Your task to perform on an android device: install app "Adobe Acrobat Reader" Image 0: 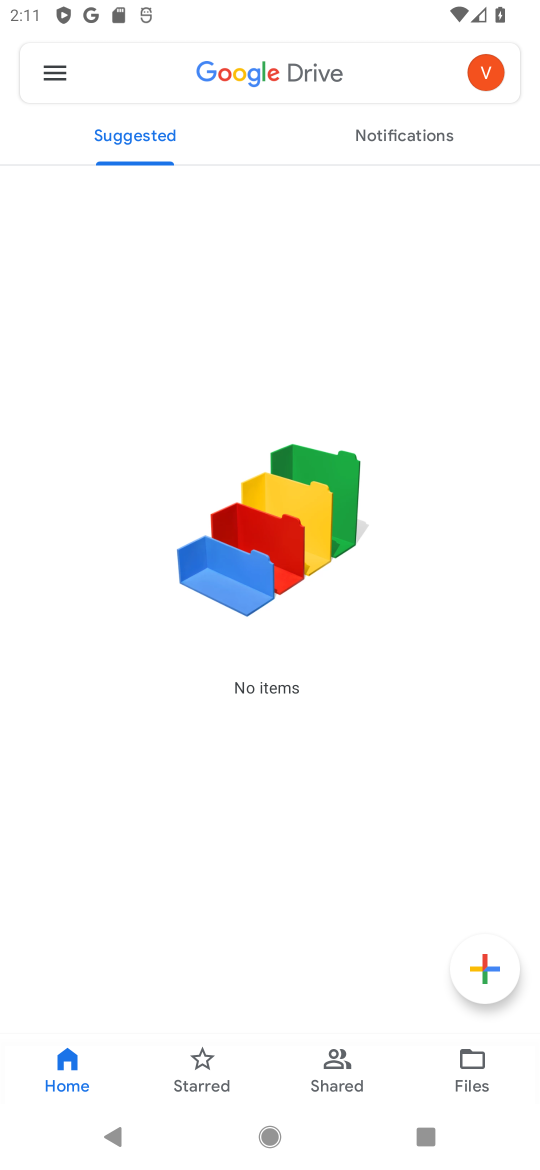
Step 0: press home button
Your task to perform on an android device: install app "Adobe Acrobat Reader" Image 1: 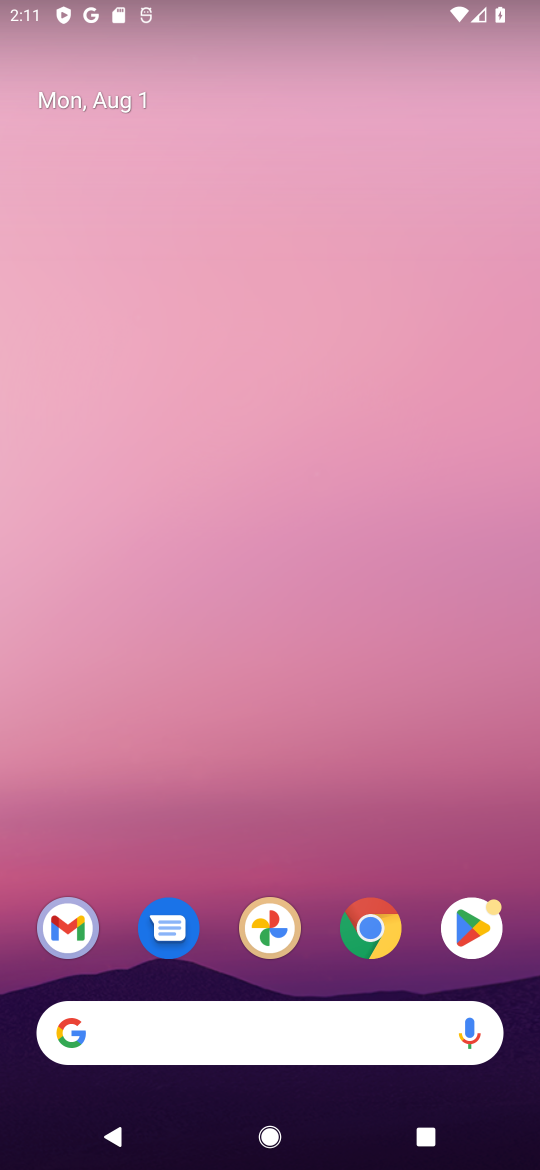
Step 1: click (483, 901)
Your task to perform on an android device: install app "Adobe Acrobat Reader" Image 2: 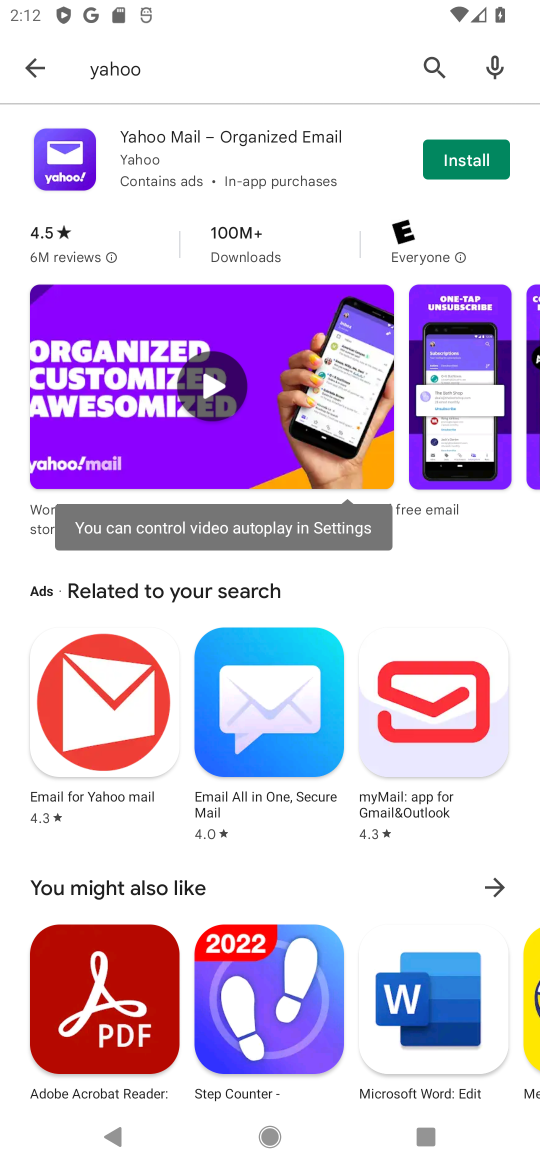
Step 2: click (431, 74)
Your task to perform on an android device: install app "Adobe Acrobat Reader" Image 3: 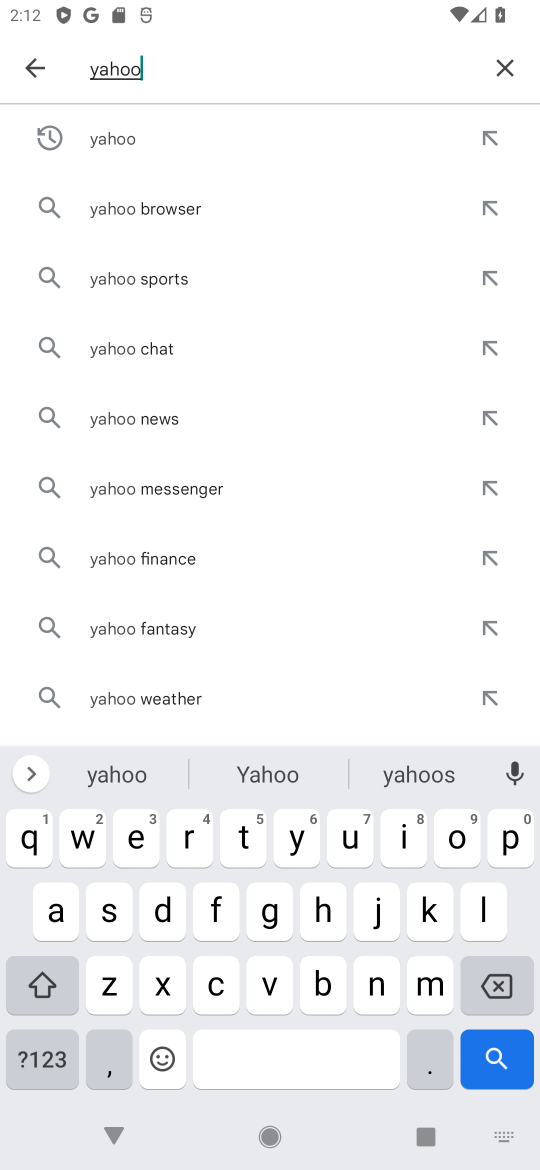
Step 3: click (496, 68)
Your task to perform on an android device: install app "Adobe Acrobat Reader" Image 4: 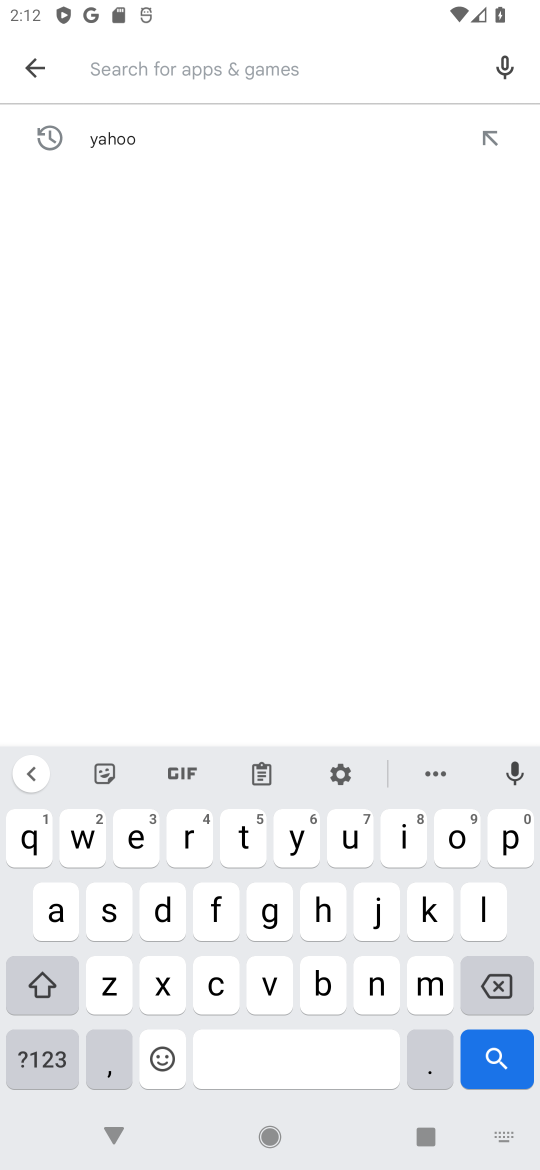
Step 4: click (53, 913)
Your task to perform on an android device: install app "Adobe Acrobat Reader" Image 5: 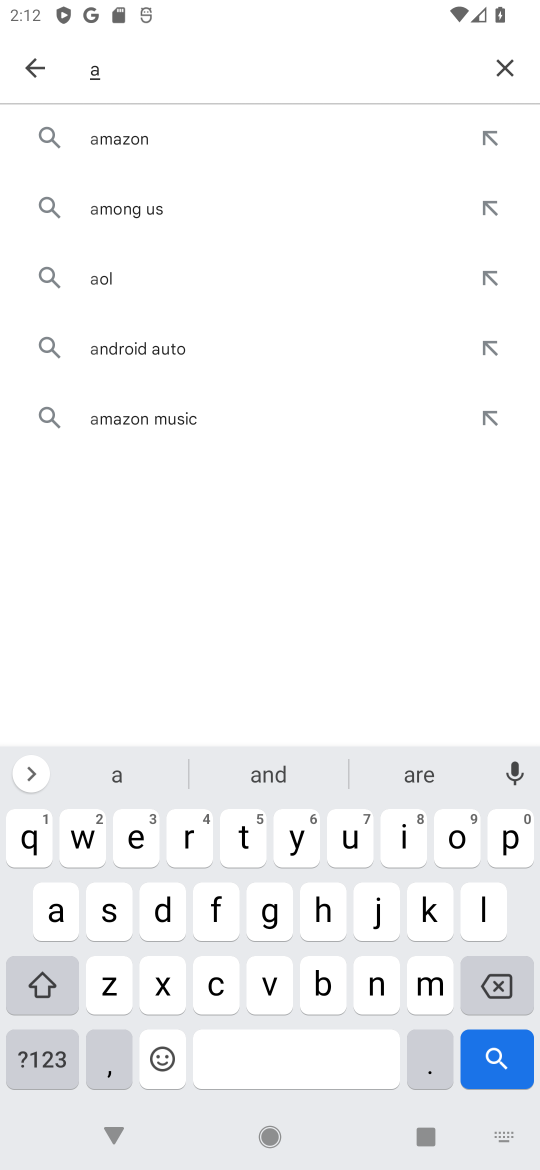
Step 5: click (168, 918)
Your task to perform on an android device: install app "Adobe Acrobat Reader" Image 6: 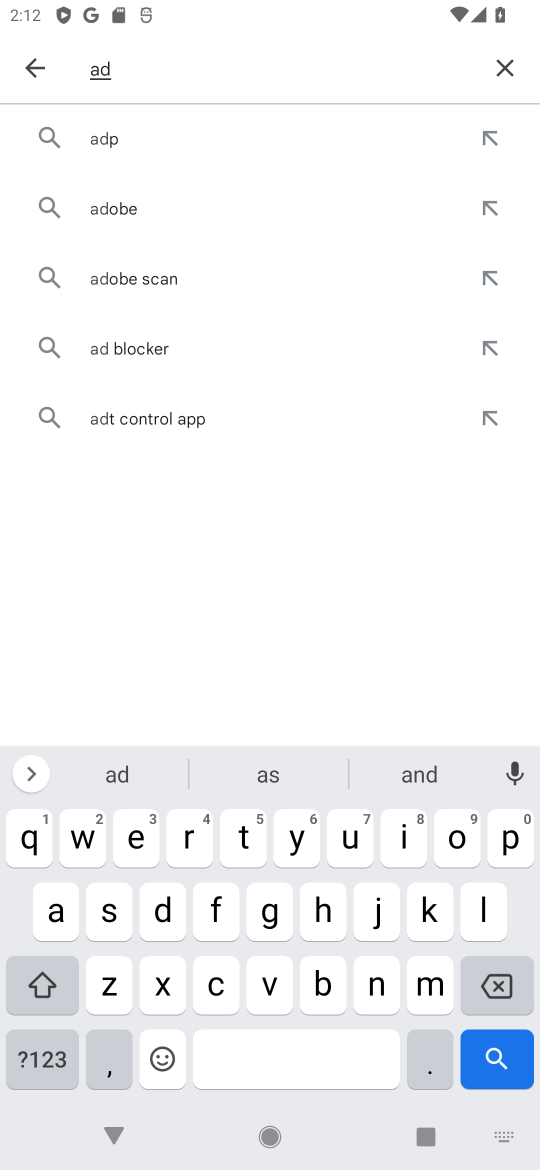
Step 6: click (443, 842)
Your task to perform on an android device: install app "Adobe Acrobat Reader" Image 7: 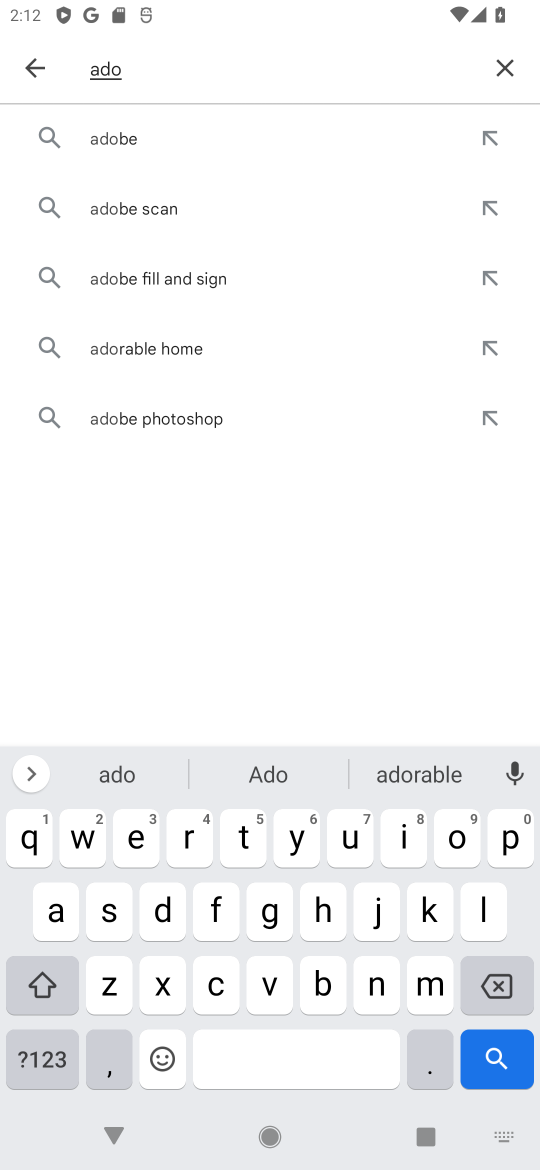
Step 7: click (124, 133)
Your task to perform on an android device: install app "Adobe Acrobat Reader" Image 8: 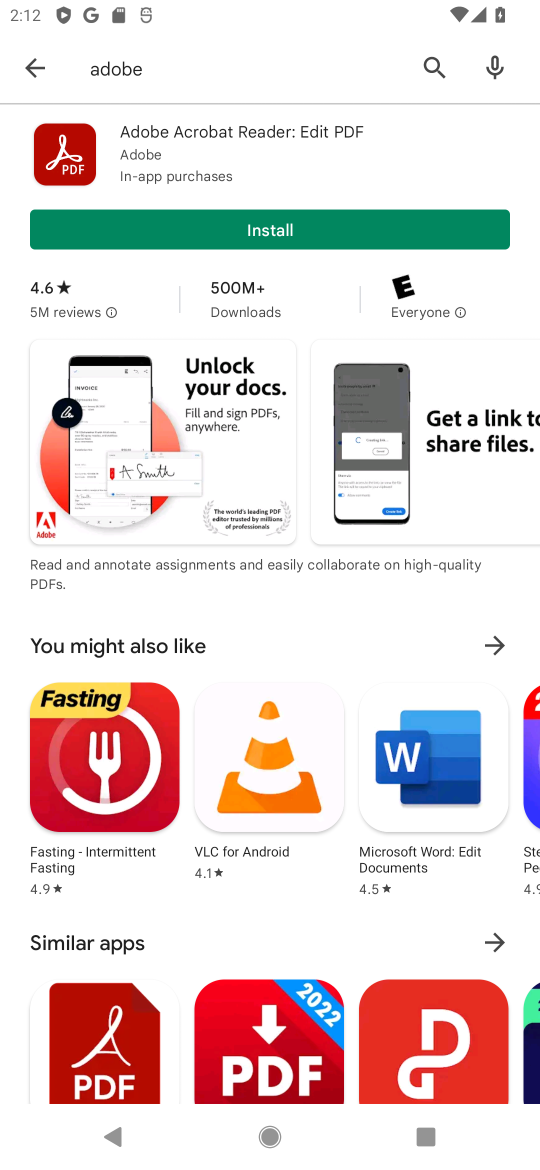
Step 8: click (105, 223)
Your task to perform on an android device: install app "Adobe Acrobat Reader" Image 9: 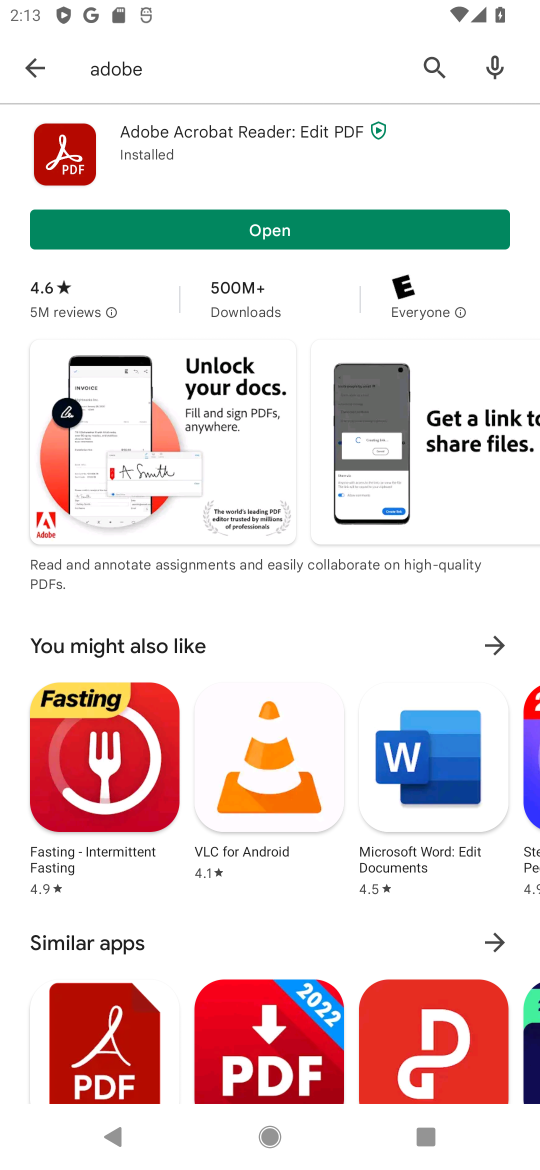
Step 9: task complete